Your task to perform on an android device: Open Maps and search for coffee Image 0: 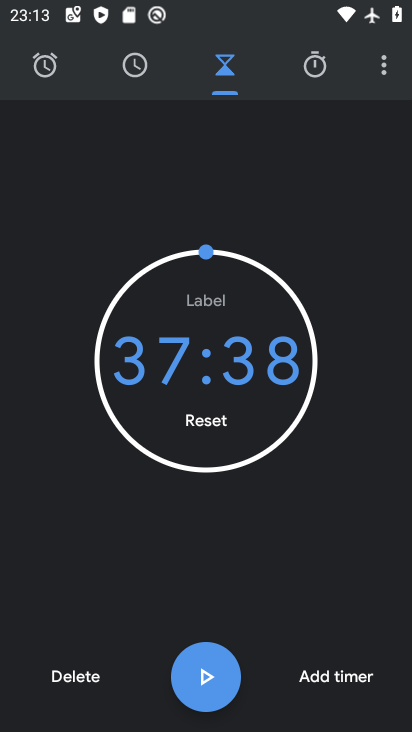
Step 0: press back button
Your task to perform on an android device: Open Maps and search for coffee Image 1: 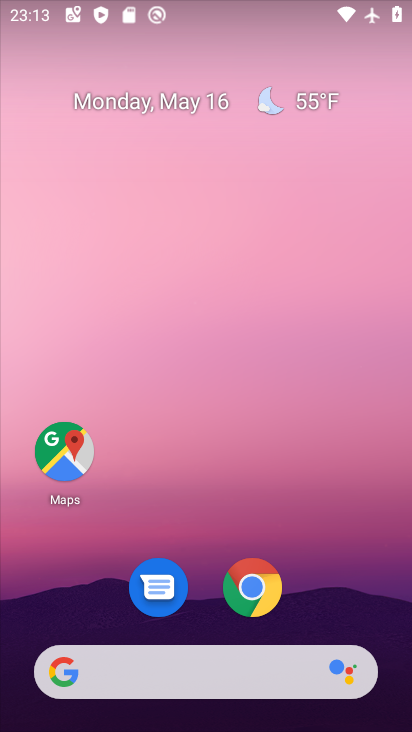
Step 1: drag from (314, 504) to (225, 6)
Your task to perform on an android device: Open Maps and search for coffee Image 2: 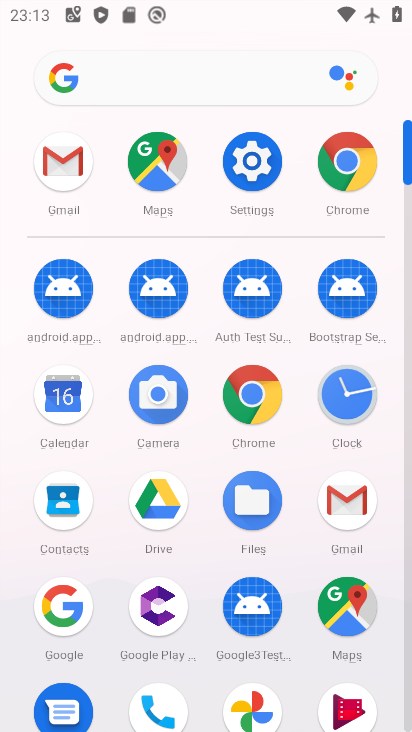
Step 2: drag from (14, 640) to (24, 300)
Your task to perform on an android device: Open Maps and search for coffee Image 3: 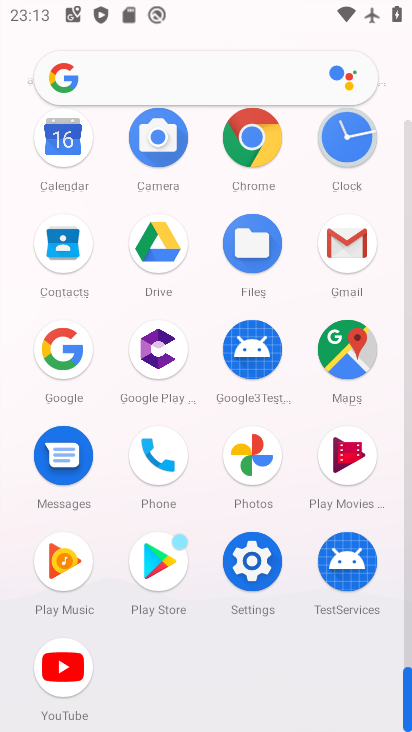
Step 3: click (352, 348)
Your task to perform on an android device: Open Maps and search for coffee Image 4: 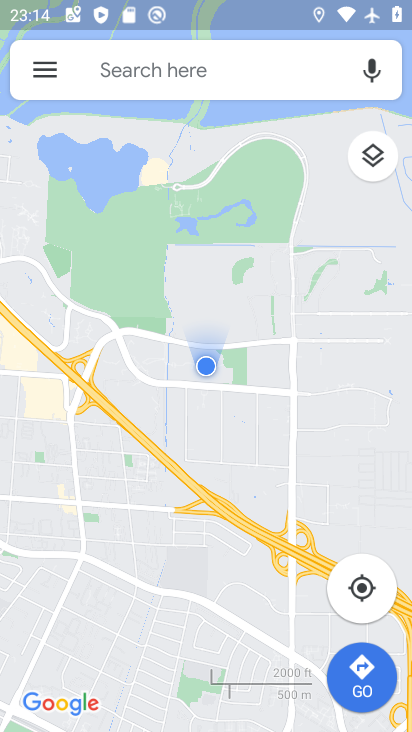
Step 4: click (226, 46)
Your task to perform on an android device: Open Maps and search for coffee Image 5: 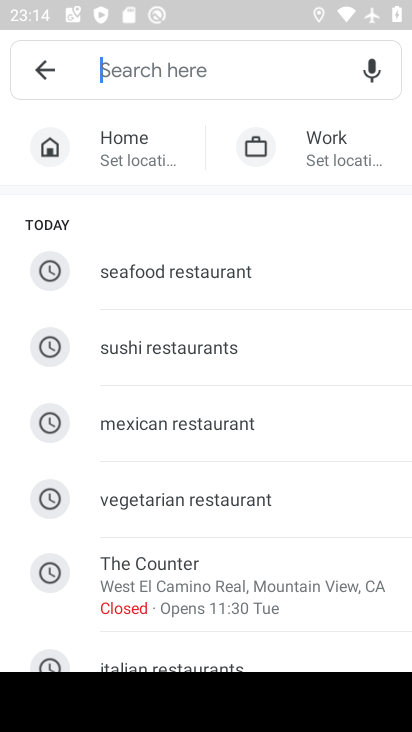
Step 5: click (194, 81)
Your task to perform on an android device: Open Maps and search for coffee Image 6: 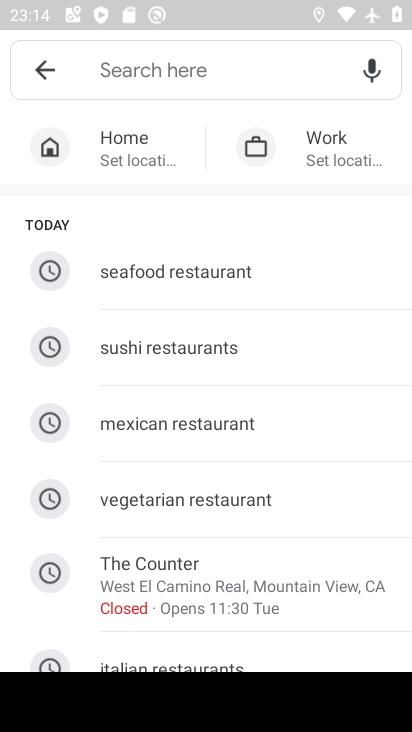
Step 6: type "coffee"
Your task to perform on an android device: Open Maps and search for coffee Image 7: 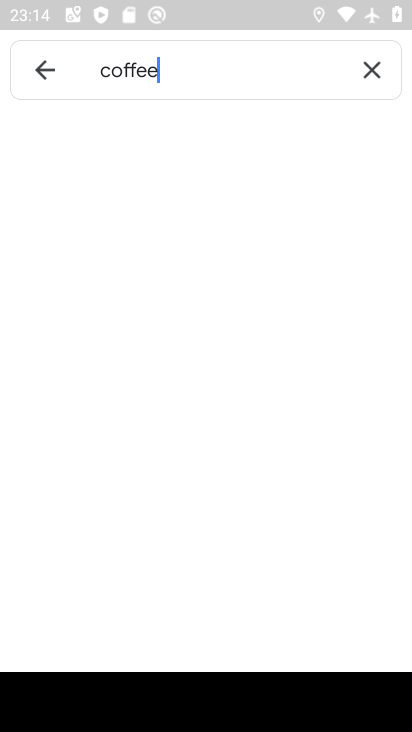
Step 7: type ""
Your task to perform on an android device: Open Maps and search for coffee Image 8: 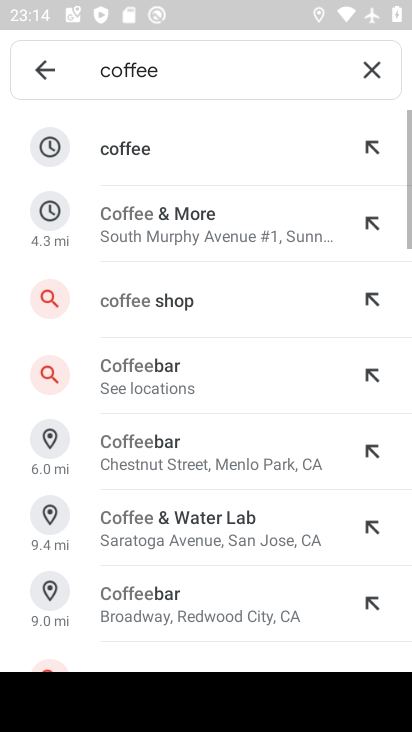
Step 8: click (154, 155)
Your task to perform on an android device: Open Maps and search for coffee Image 9: 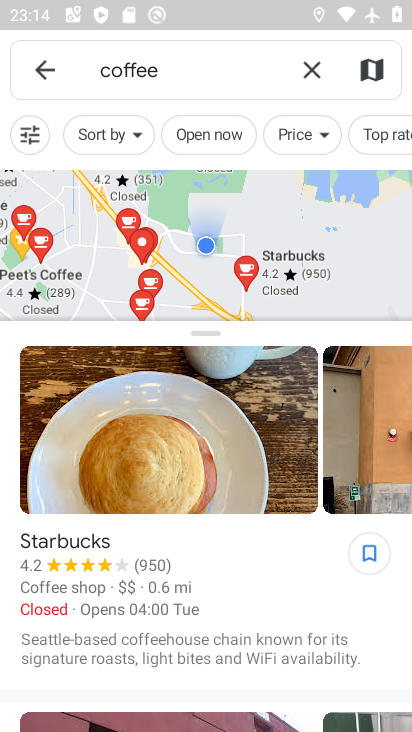
Step 9: task complete